Your task to perform on an android device: change text size in settings app Image 0: 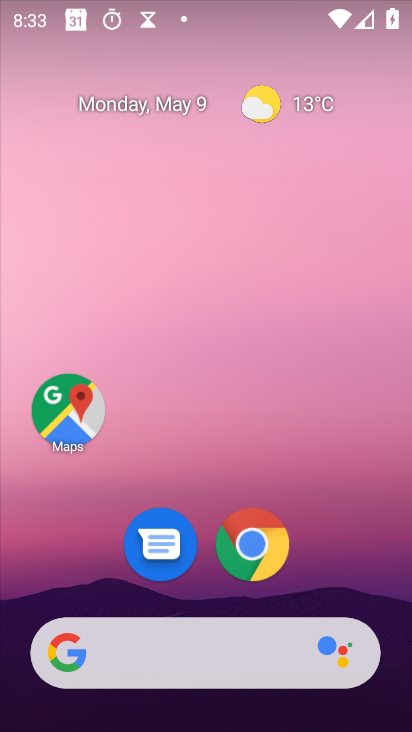
Step 0: drag from (350, 548) to (320, 18)
Your task to perform on an android device: change text size in settings app Image 1: 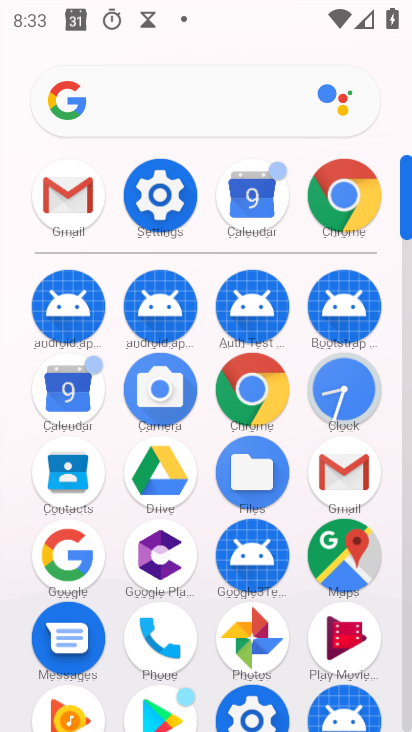
Step 1: click (176, 192)
Your task to perform on an android device: change text size in settings app Image 2: 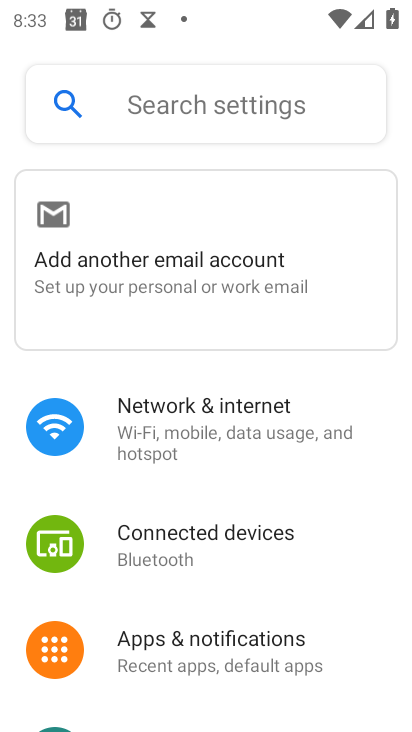
Step 2: drag from (267, 603) to (300, 244)
Your task to perform on an android device: change text size in settings app Image 3: 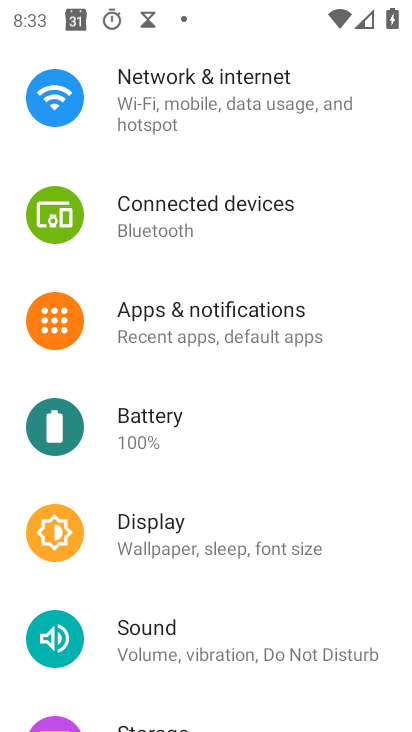
Step 3: click (210, 548)
Your task to perform on an android device: change text size in settings app Image 4: 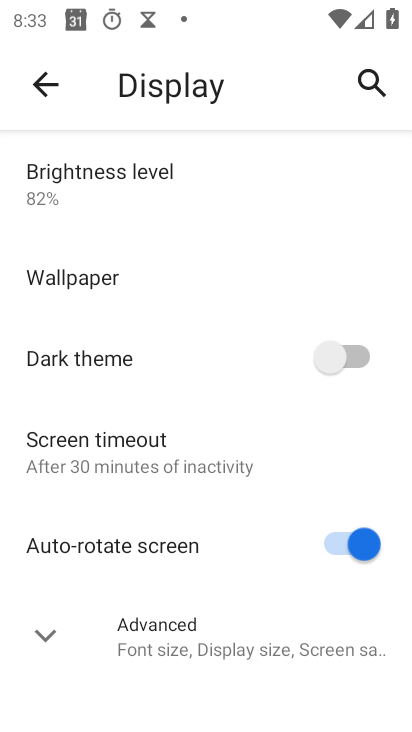
Step 4: drag from (249, 666) to (210, 287)
Your task to perform on an android device: change text size in settings app Image 5: 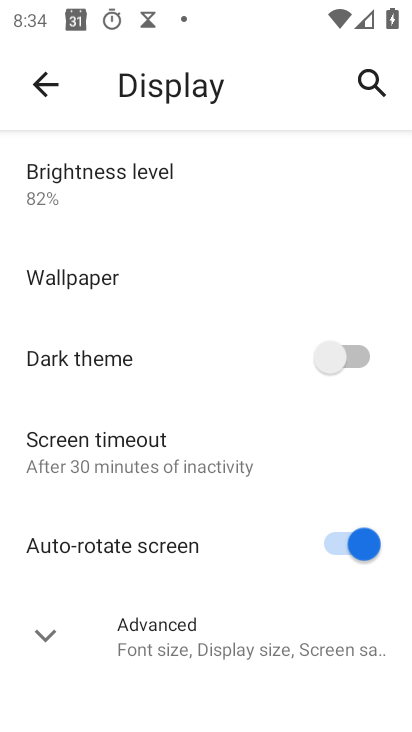
Step 5: click (233, 650)
Your task to perform on an android device: change text size in settings app Image 6: 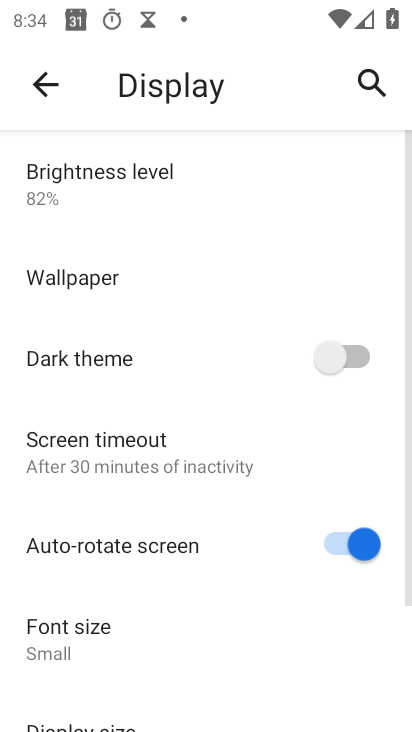
Step 6: drag from (230, 606) to (298, 223)
Your task to perform on an android device: change text size in settings app Image 7: 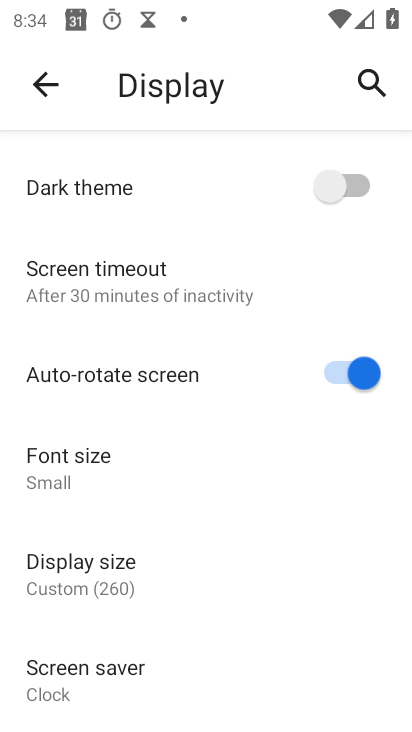
Step 7: click (52, 461)
Your task to perform on an android device: change text size in settings app Image 8: 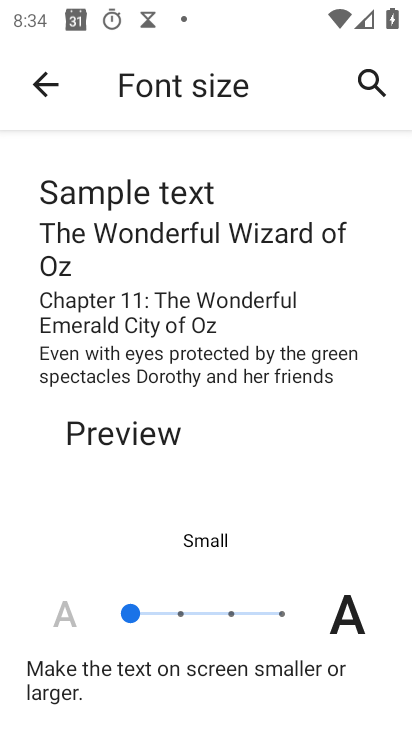
Step 8: click (177, 620)
Your task to perform on an android device: change text size in settings app Image 9: 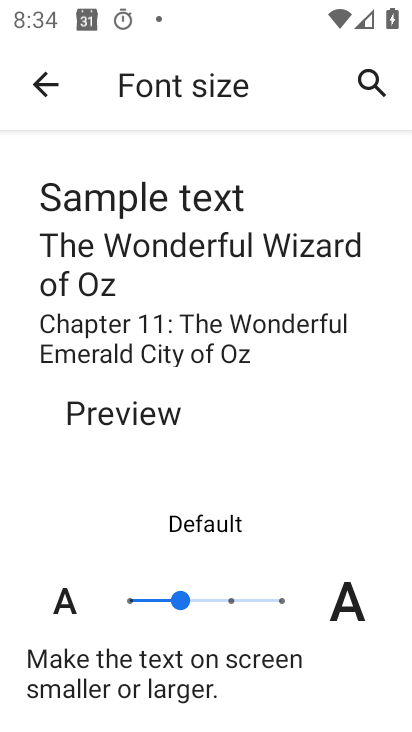
Step 9: task complete